Your task to perform on an android device: toggle notifications settings in the gmail app Image 0: 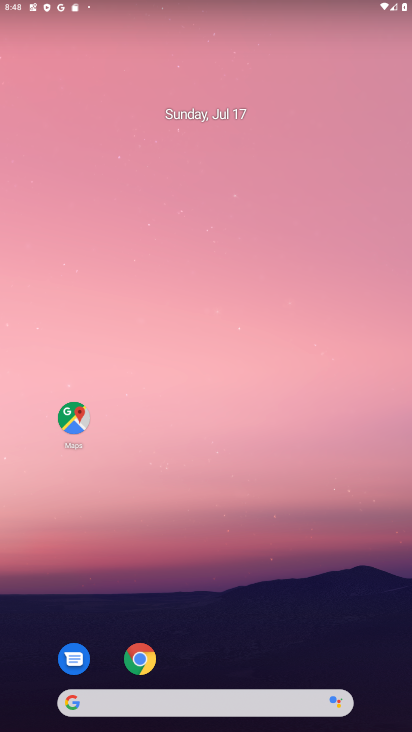
Step 0: drag from (276, 546) to (310, 136)
Your task to perform on an android device: toggle notifications settings in the gmail app Image 1: 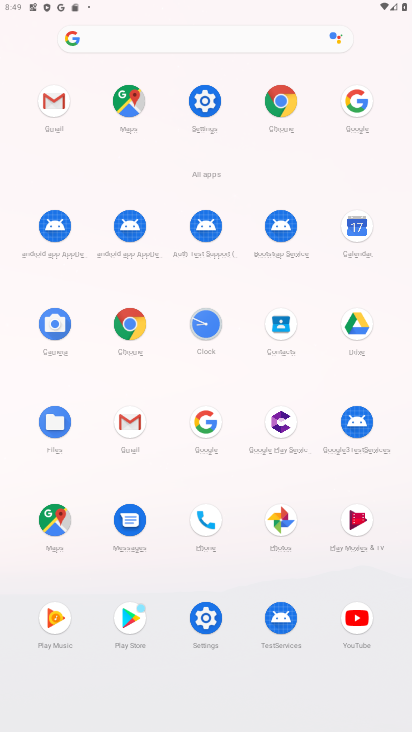
Step 1: click (134, 430)
Your task to perform on an android device: toggle notifications settings in the gmail app Image 2: 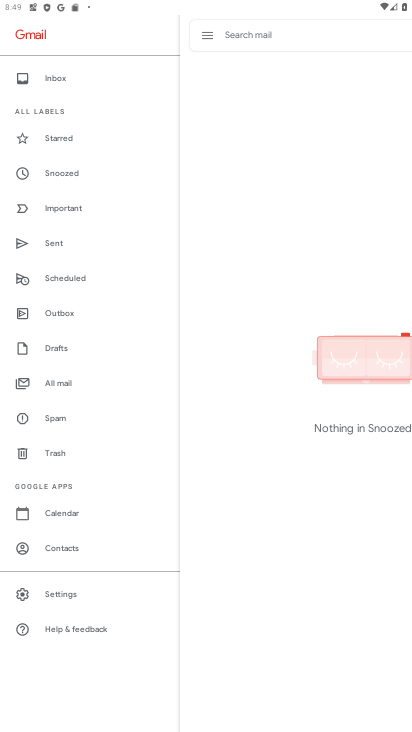
Step 2: click (56, 589)
Your task to perform on an android device: toggle notifications settings in the gmail app Image 3: 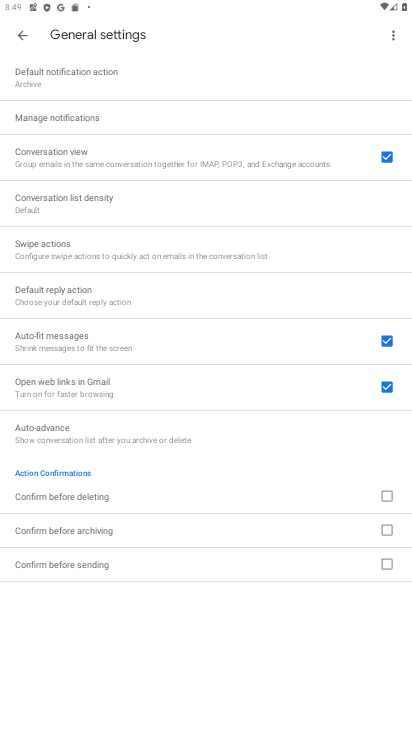
Step 3: task complete